Your task to perform on an android device: turn off improve location accuracy Image 0: 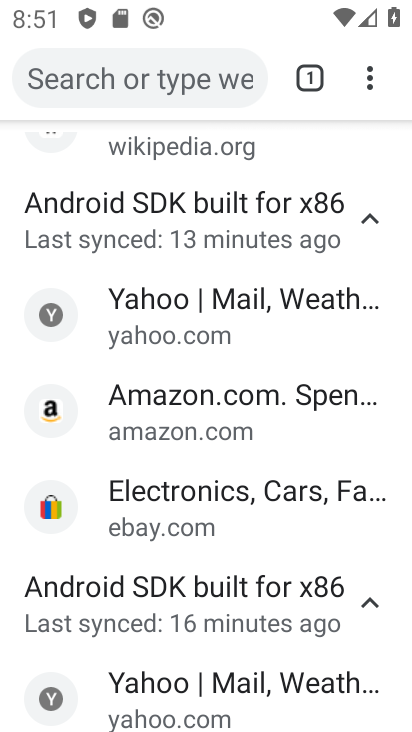
Step 0: press home button
Your task to perform on an android device: turn off improve location accuracy Image 1: 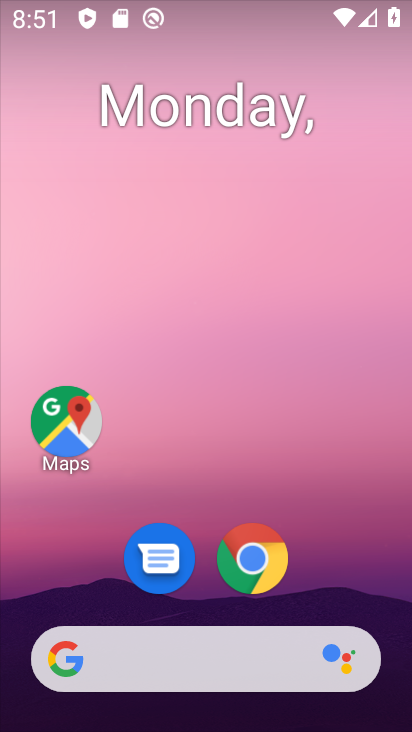
Step 1: drag from (327, 564) to (372, 103)
Your task to perform on an android device: turn off improve location accuracy Image 2: 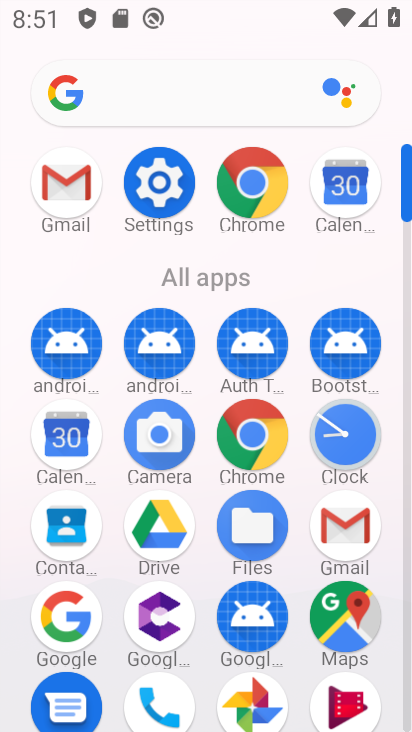
Step 2: click (154, 164)
Your task to perform on an android device: turn off improve location accuracy Image 3: 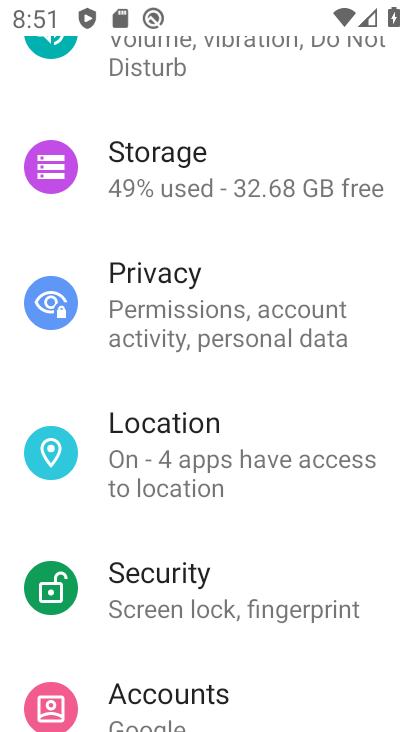
Step 3: click (141, 431)
Your task to perform on an android device: turn off improve location accuracy Image 4: 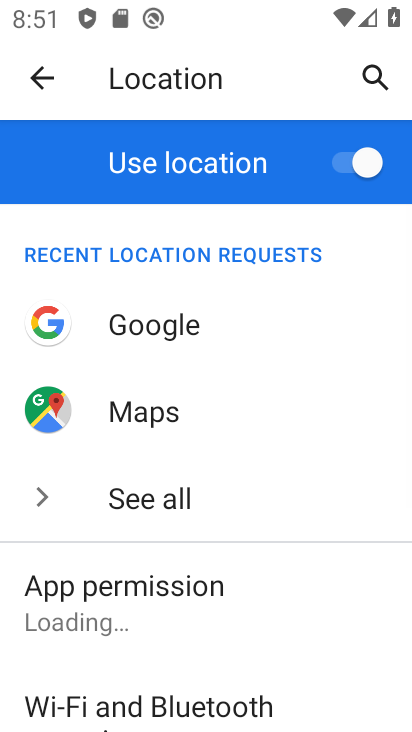
Step 4: drag from (317, 606) to (367, 155)
Your task to perform on an android device: turn off improve location accuracy Image 5: 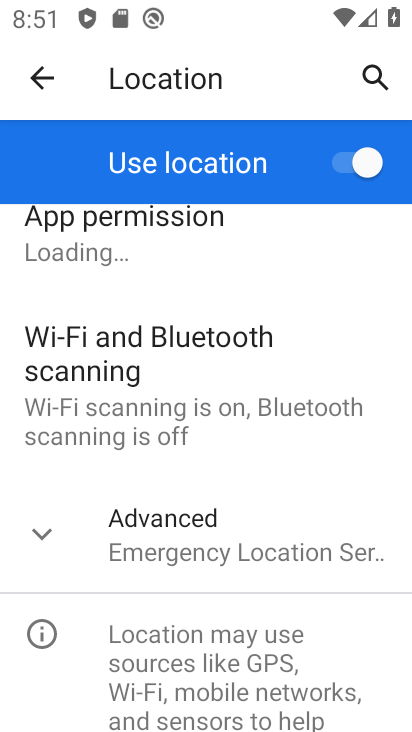
Step 5: click (178, 528)
Your task to perform on an android device: turn off improve location accuracy Image 6: 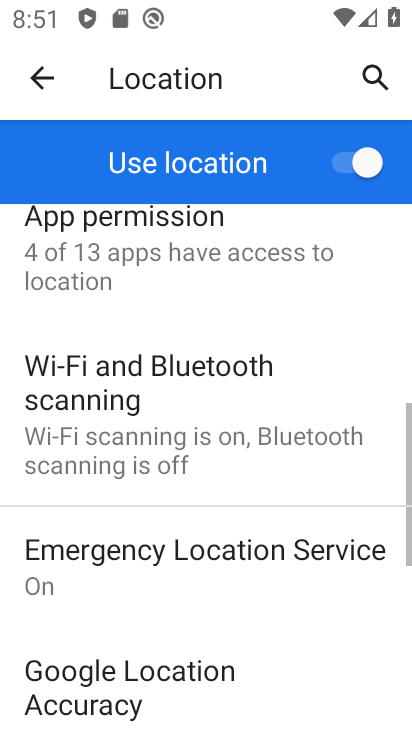
Step 6: drag from (219, 639) to (290, 294)
Your task to perform on an android device: turn off improve location accuracy Image 7: 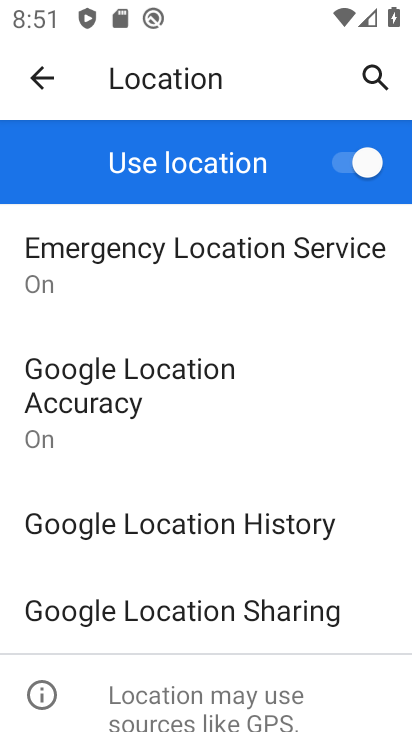
Step 7: click (138, 364)
Your task to perform on an android device: turn off improve location accuracy Image 8: 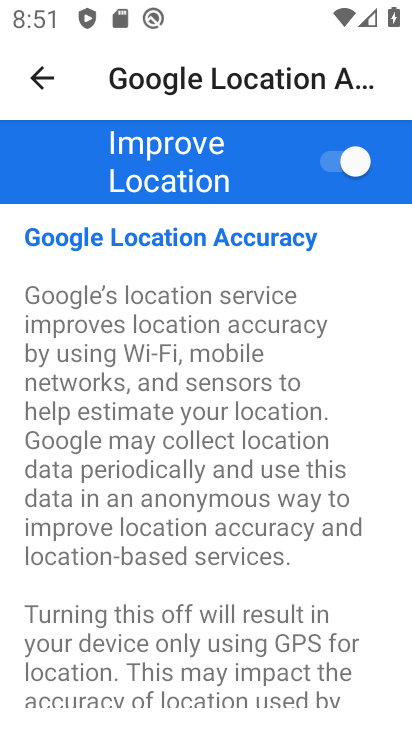
Step 8: click (343, 167)
Your task to perform on an android device: turn off improve location accuracy Image 9: 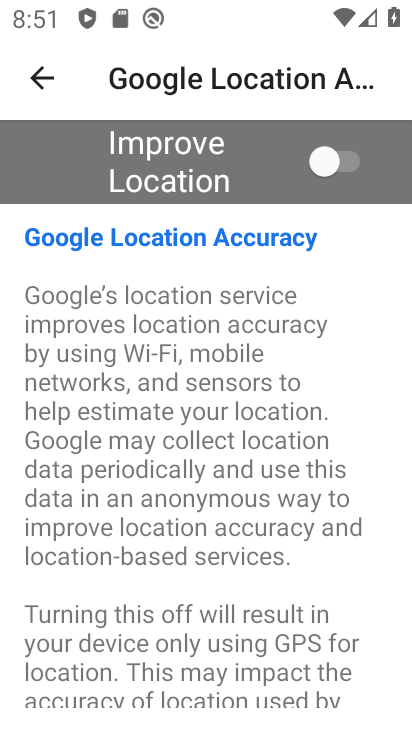
Step 9: task complete